Your task to perform on an android device: Open Amazon Image 0: 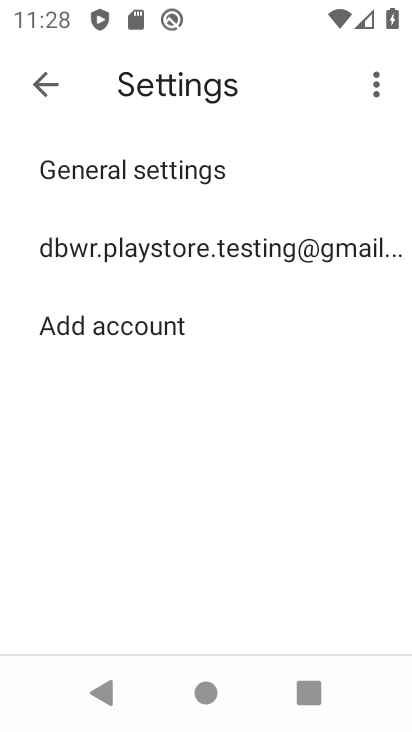
Step 0: press home button
Your task to perform on an android device: Open Amazon Image 1: 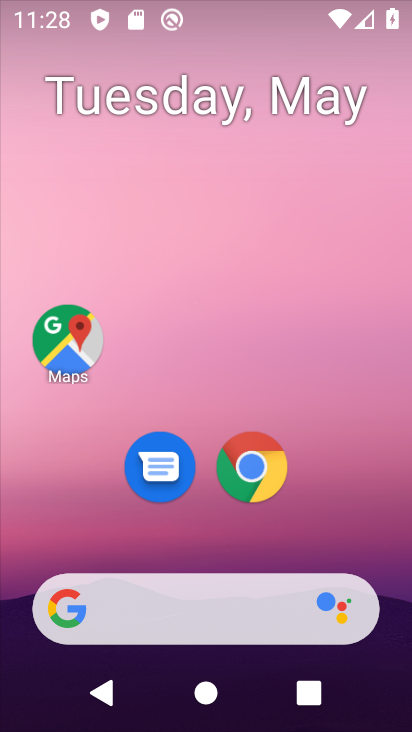
Step 1: drag from (225, 561) to (280, 33)
Your task to perform on an android device: Open Amazon Image 2: 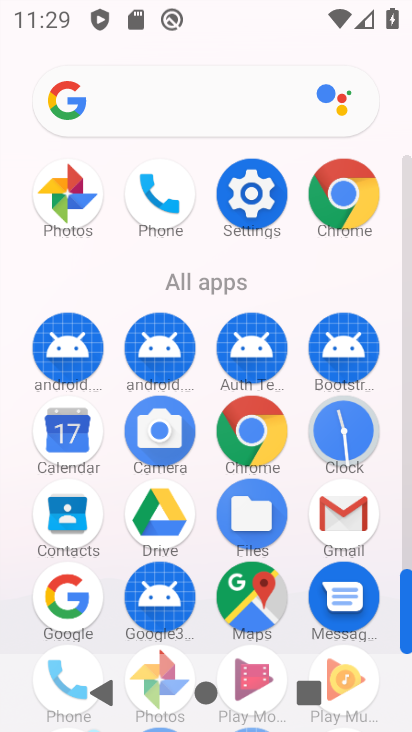
Step 2: click (253, 432)
Your task to perform on an android device: Open Amazon Image 3: 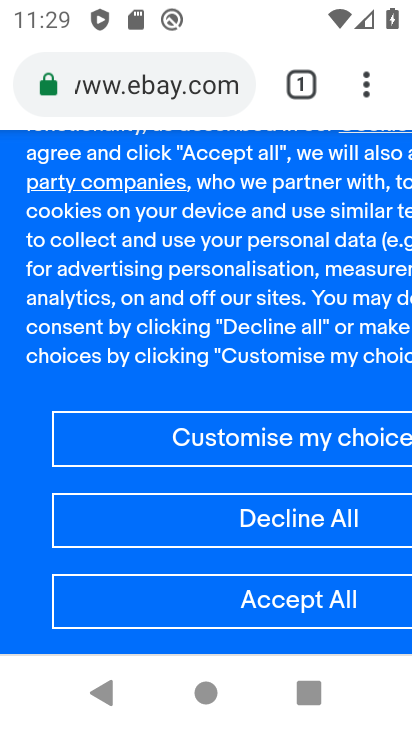
Step 3: click (319, 110)
Your task to perform on an android device: Open Amazon Image 4: 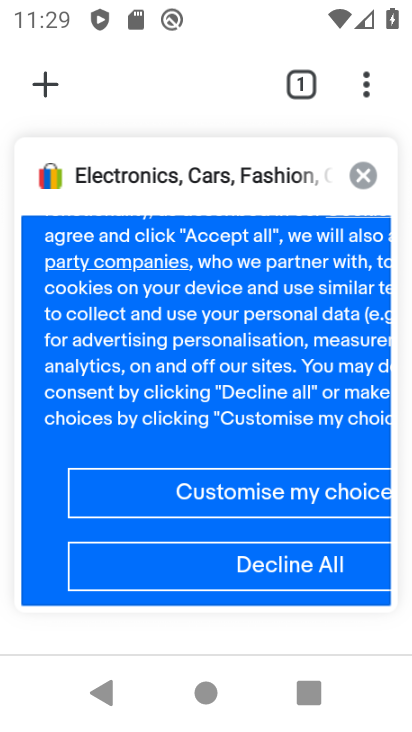
Step 4: click (32, 94)
Your task to perform on an android device: Open Amazon Image 5: 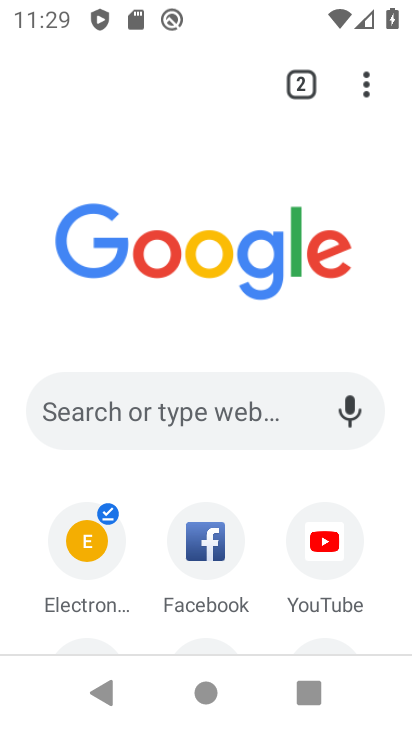
Step 5: drag from (119, 625) to (96, 329)
Your task to perform on an android device: Open Amazon Image 6: 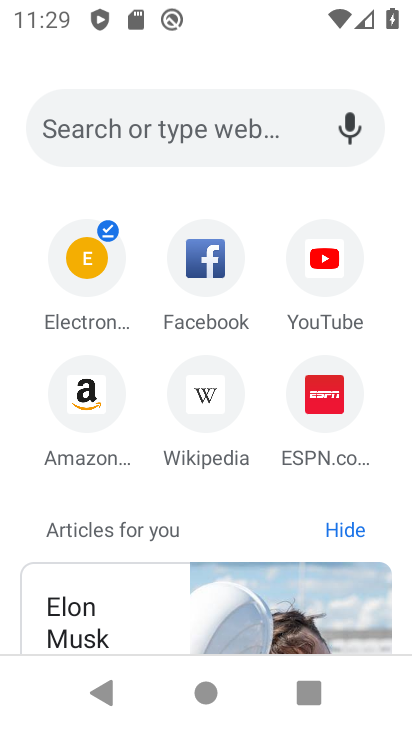
Step 6: click (87, 428)
Your task to perform on an android device: Open Amazon Image 7: 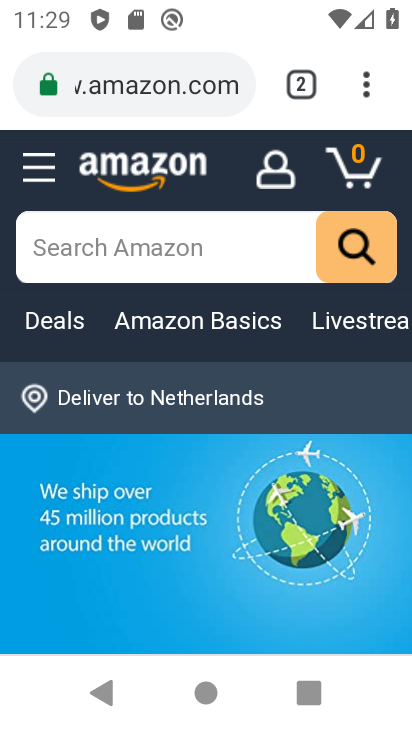
Step 7: task complete